Your task to perform on an android device: Open calendar and show me the third week of next month Image 0: 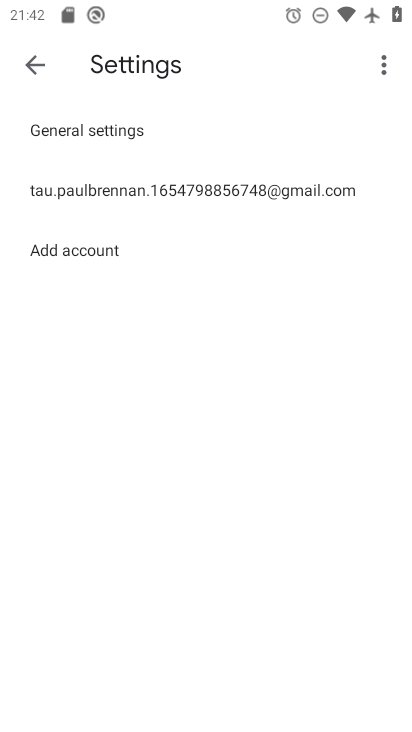
Step 0: press home button
Your task to perform on an android device: Open calendar and show me the third week of next month Image 1: 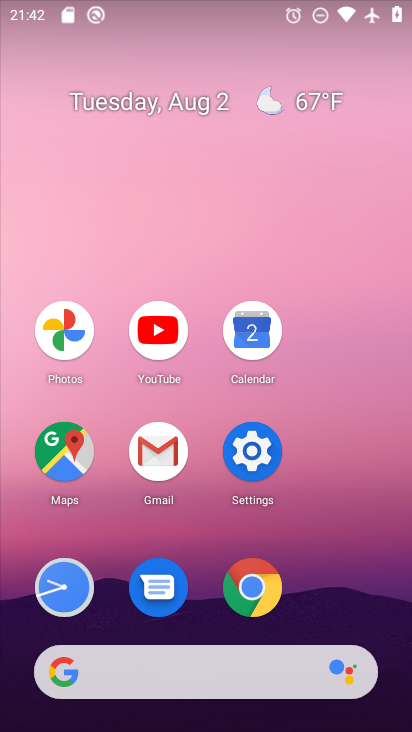
Step 1: click (253, 339)
Your task to perform on an android device: Open calendar and show me the third week of next month Image 2: 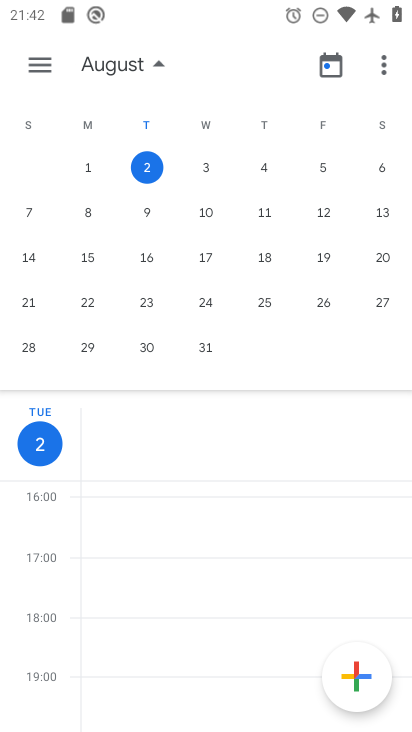
Step 2: drag from (379, 254) to (12, 166)
Your task to perform on an android device: Open calendar and show me the third week of next month Image 3: 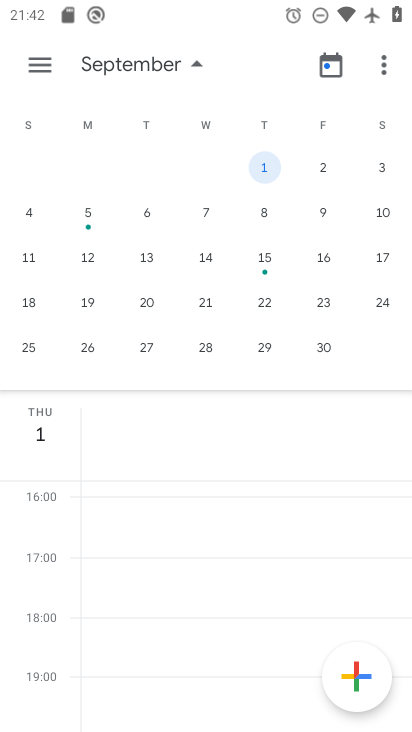
Step 3: click (37, 67)
Your task to perform on an android device: Open calendar and show me the third week of next month Image 4: 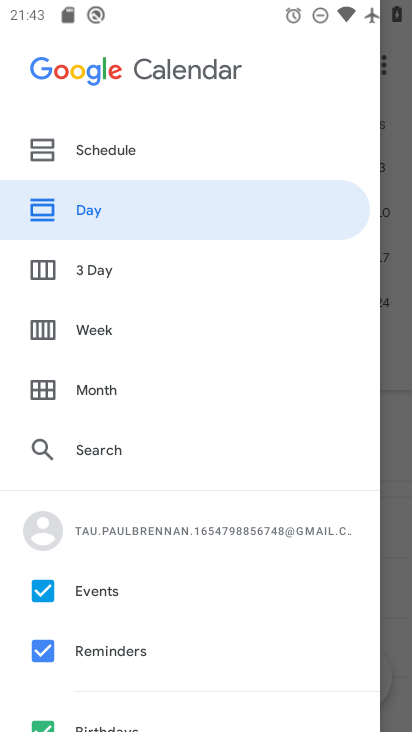
Step 4: click (87, 324)
Your task to perform on an android device: Open calendar and show me the third week of next month Image 5: 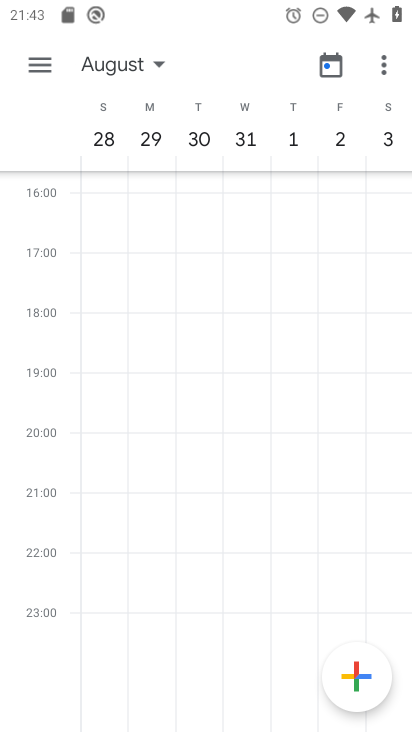
Step 5: click (154, 65)
Your task to perform on an android device: Open calendar and show me the third week of next month Image 6: 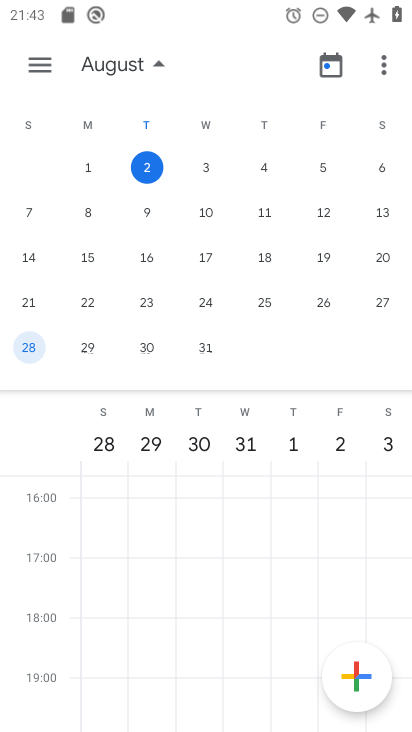
Step 6: drag from (371, 263) to (5, 182)
Your task to perform on an android device: Open calendar and show me the third week of next month Image 7: 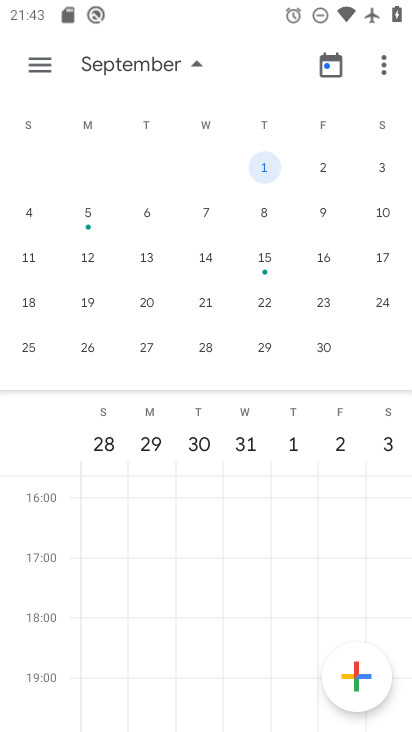
Step 7: click (203, 260)
Your task to perform on an android device: Open calendar and show me the third week of next month Image 8: 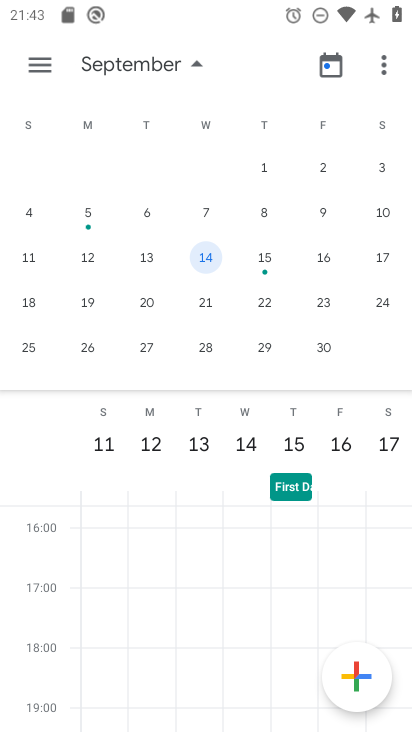
Step 8: task complete